Your task to perform on an android device: turn on sleep mode Image 0: 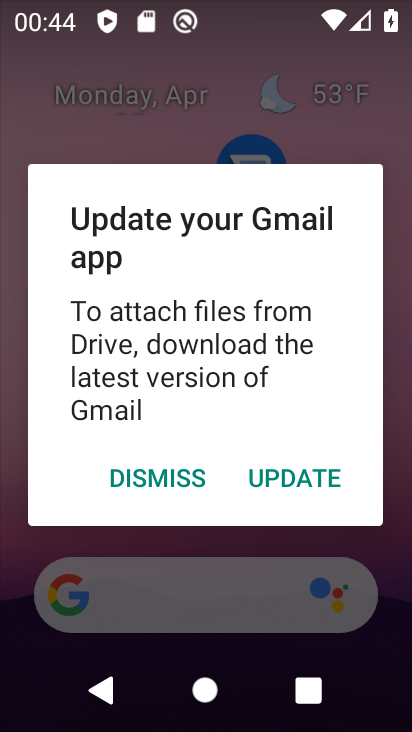
Step 0: click (164, 481)
Your task to perform on an android device: turn on sleep mode Image 1: 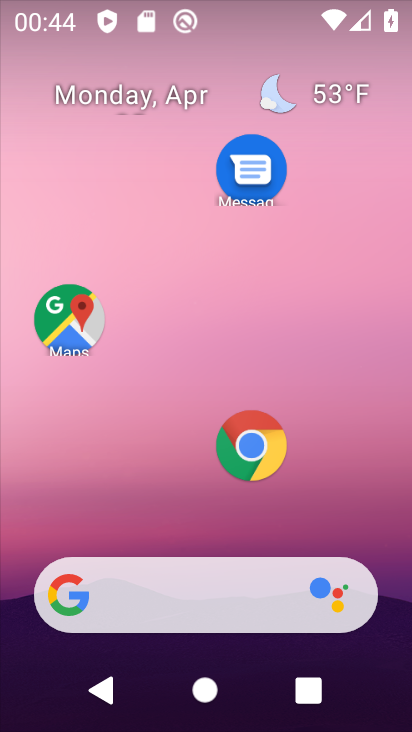
Step 1: drag from (178, 513) to (335, 14)
Your task to perform on an android device: turn on sleep mode Image 2: 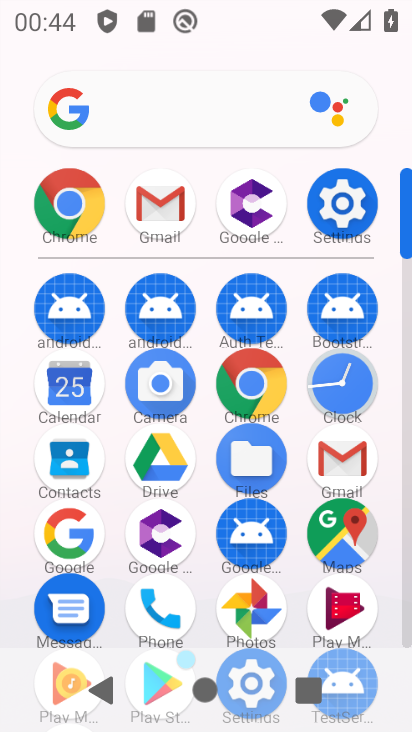
Step 2: click (352, 215)
Your task to perform on an android device: turn on sleep mode Image 3: 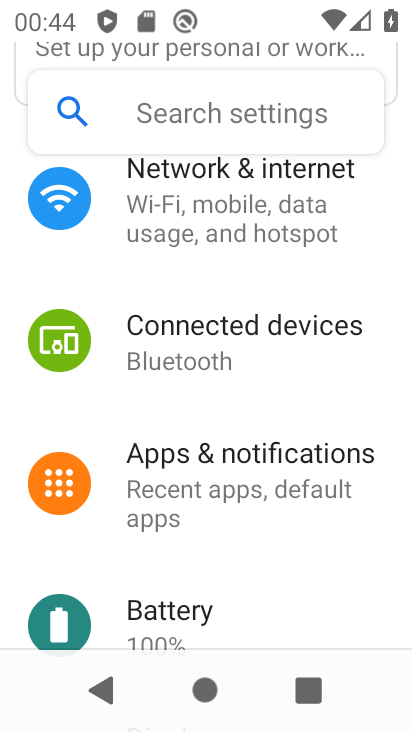
Step 3: click (232, 114)
Your task to perform on an android device: turn on sleep mode Image 4: 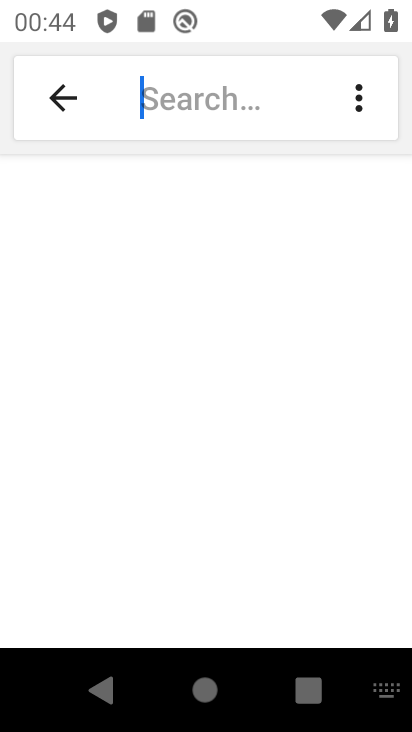
Step 4: type "sleep mode"
Your task to perform on an android device: turn on sleep mode Image 5: 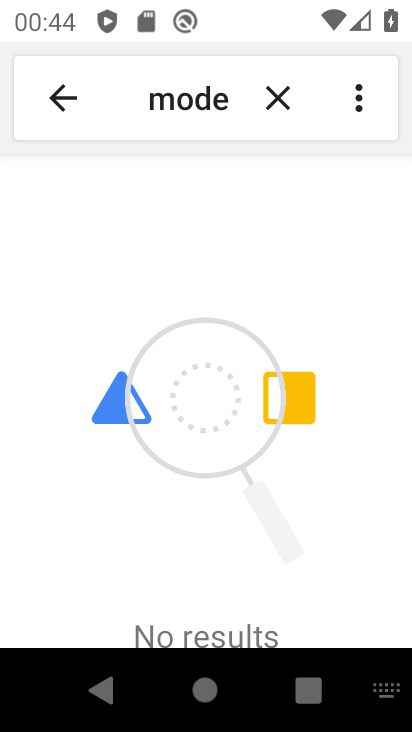
Step 5: task complete